Your task to perform on an android device: Go to sound settings Image 0: 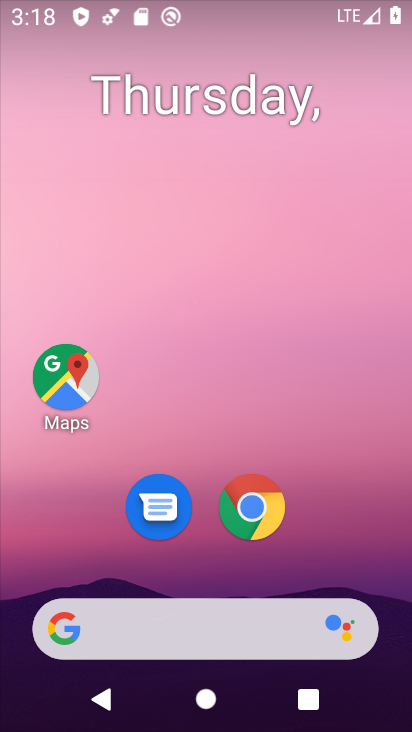
Step 0: drag from (357, 534) to (318, 26)
Your task to perform on an android device: Go to sound settings Image 1: 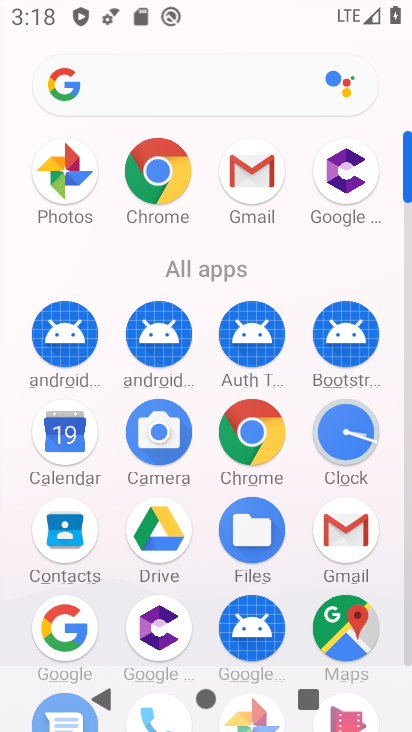
Step 1: click (411, 662)
Your task to perform on an android device: Go to sound settings Image 2: 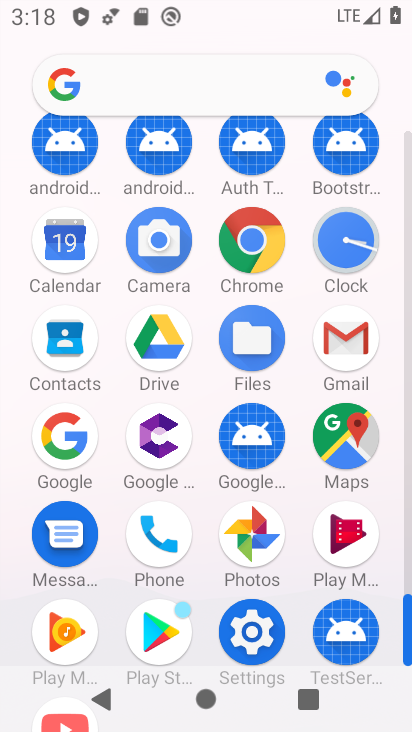
Step 2: click (227, 621)
Your task to perform on an android device: Go to sound settings Image 3: 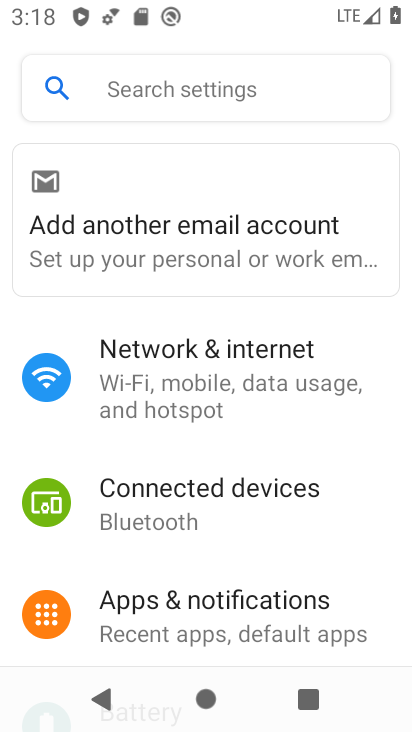
Step 3: drag from (226, 581) to (256, 220)
Your task to perform on an android device: Go to sound settings Image 4: 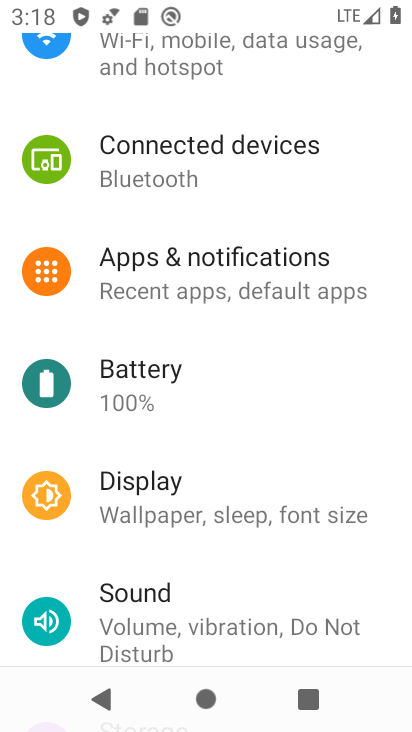
Step 4: click (134, 607)
Your task to perform on an android device: Go to sound settings Image 5: 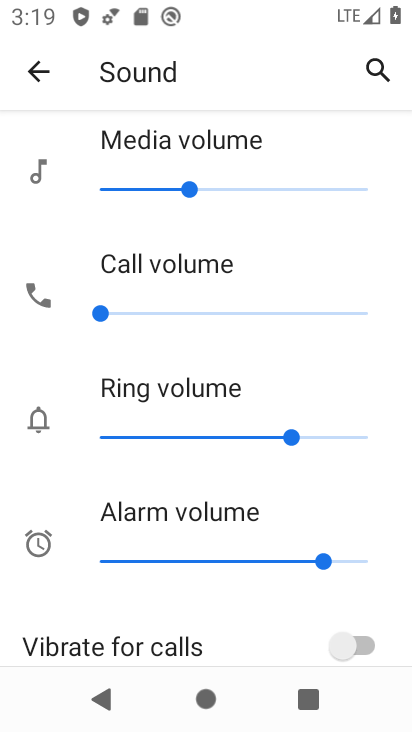
Step 5: task complete